Your task to perform on an android device: Open Google Image 0: 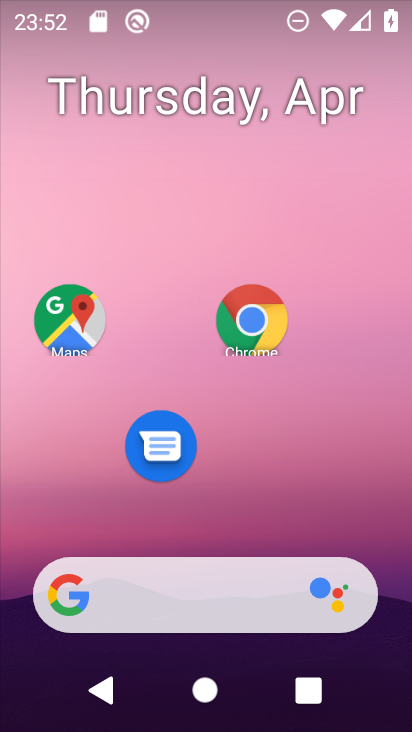
Step 0: drag from (204, 481) to (183, 180)
Your task to perform on an android device: Open Google Image 1: 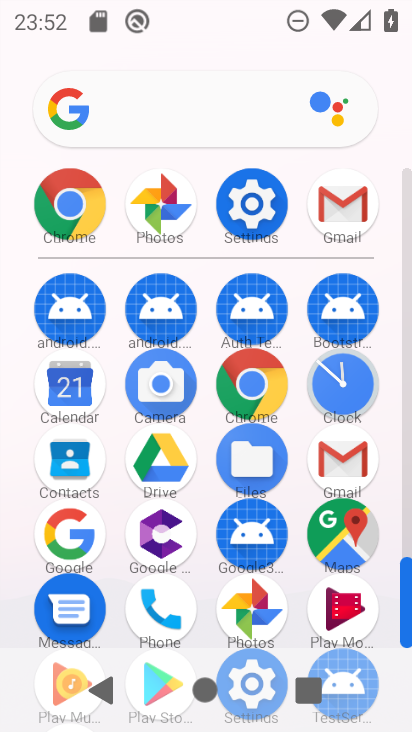
Step 1: click (79, 535)
Your task to perform on an android device: Open Google Image 2: 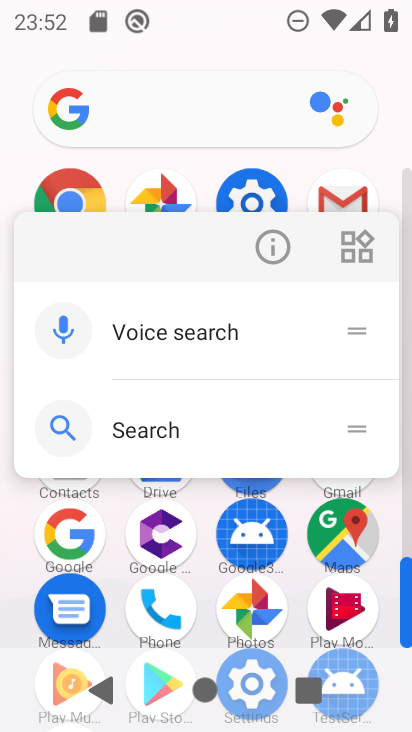
Step 2: click (262, 245)
Your task to perform on an android device: Open Google Image 3: 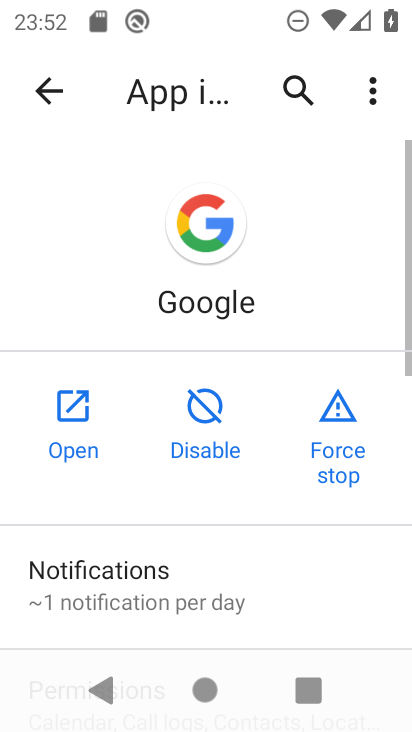
Step 3: click (69, 423)
Your task to perform on an android device: Open Google Image 4: 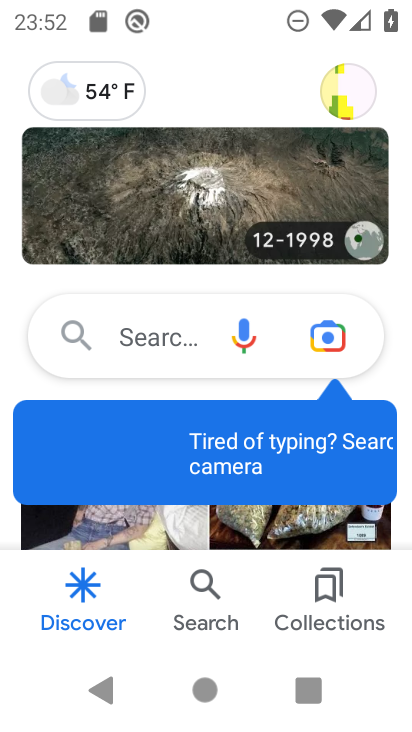
Step 4: task complete